Your task to perform on an android device: install app "Chime – Mobile Banking" Image 0: 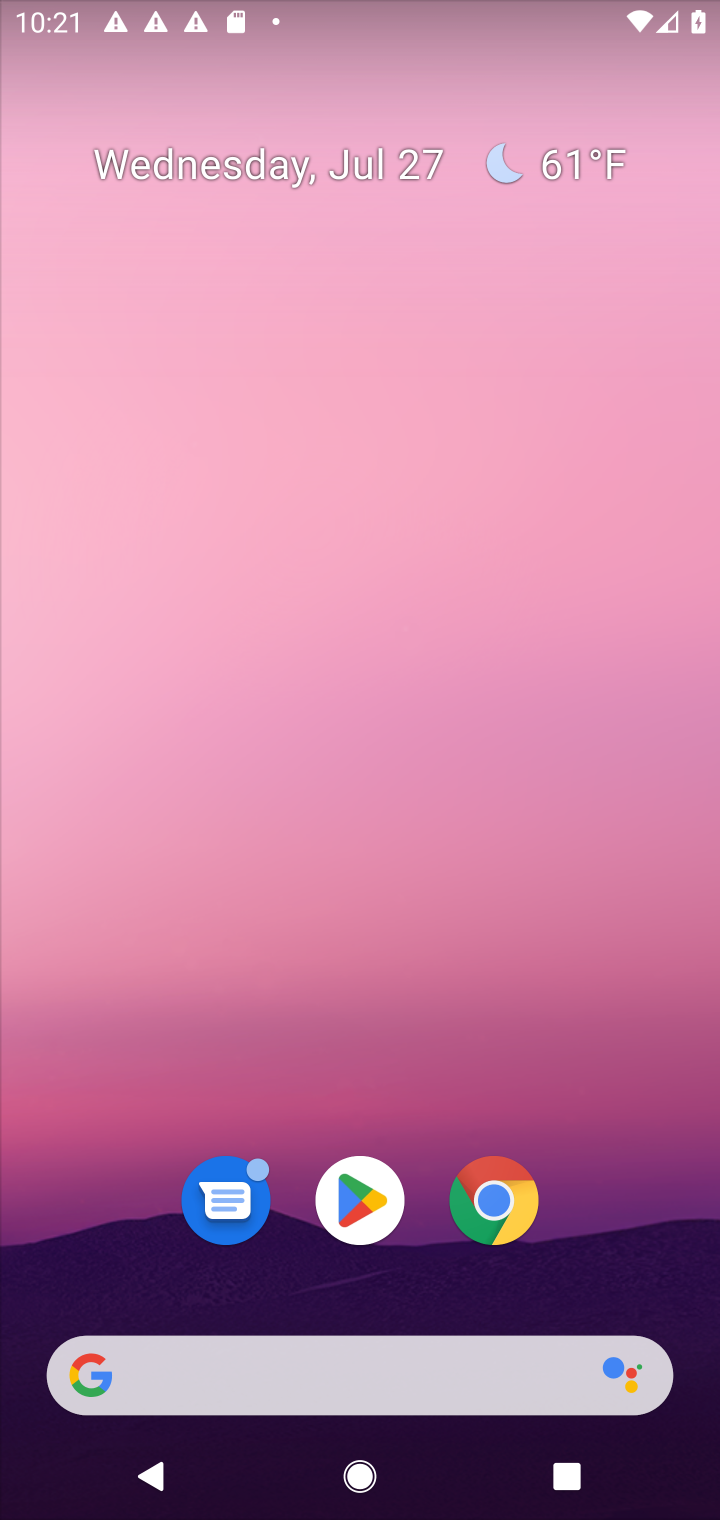
Step 0: click (357, 1196)
Your task to perform on an android device: install app "Chime – Mobile Banking" Image 1: 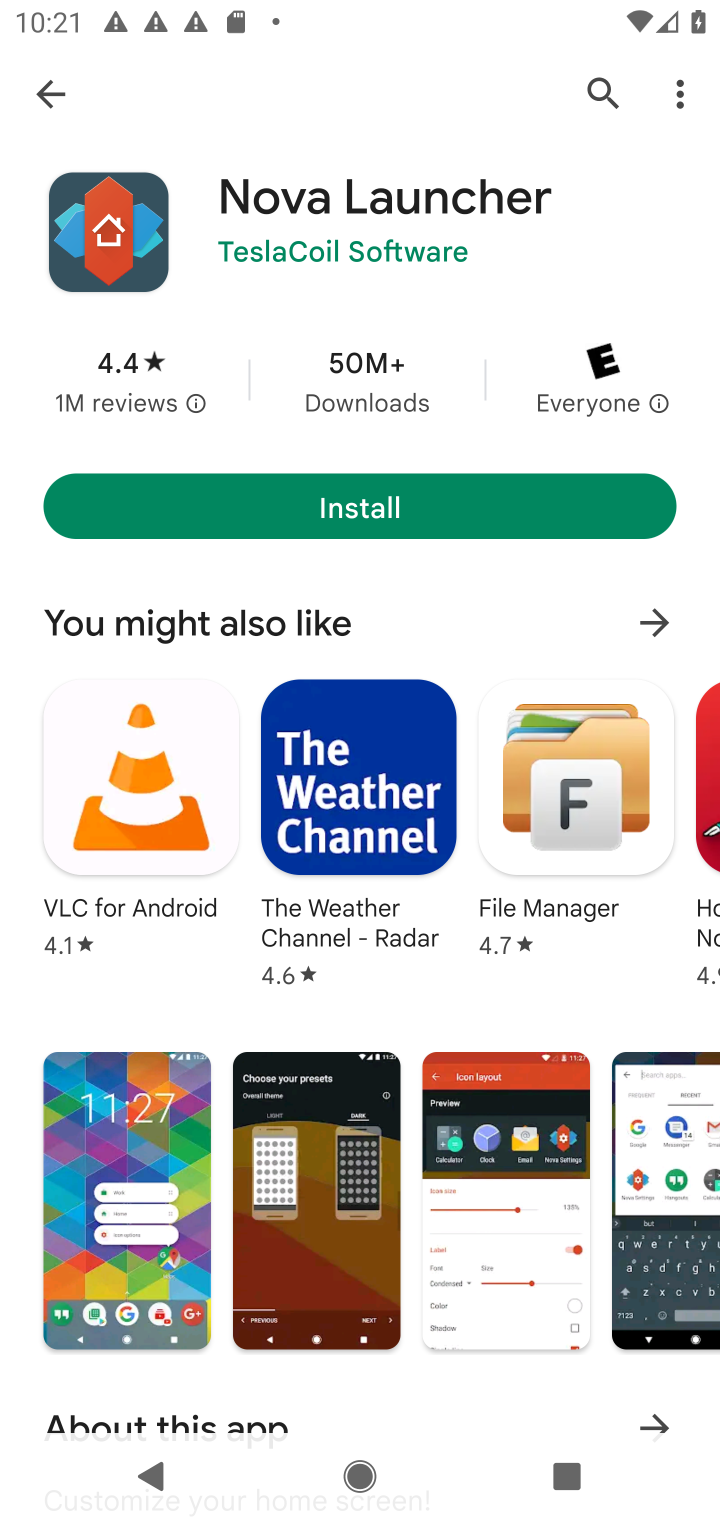
Step 1: click (56, 75)
Your task to perform on an android device: install app "Chime – Mobile Banking" Image 2: 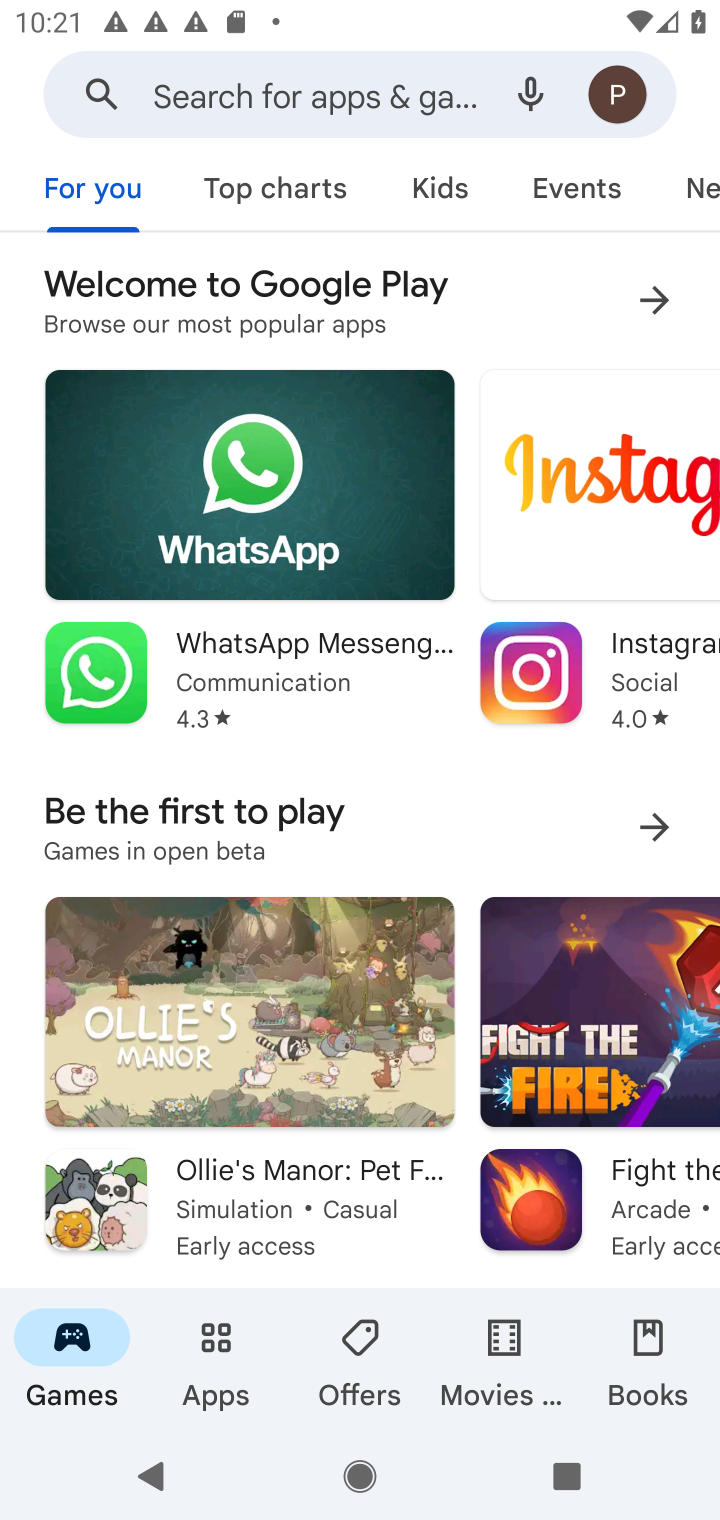
Step 2: click (243, 98)
Your task to perform on an android device: install app "Chime – Mobile Banking" Image 3: 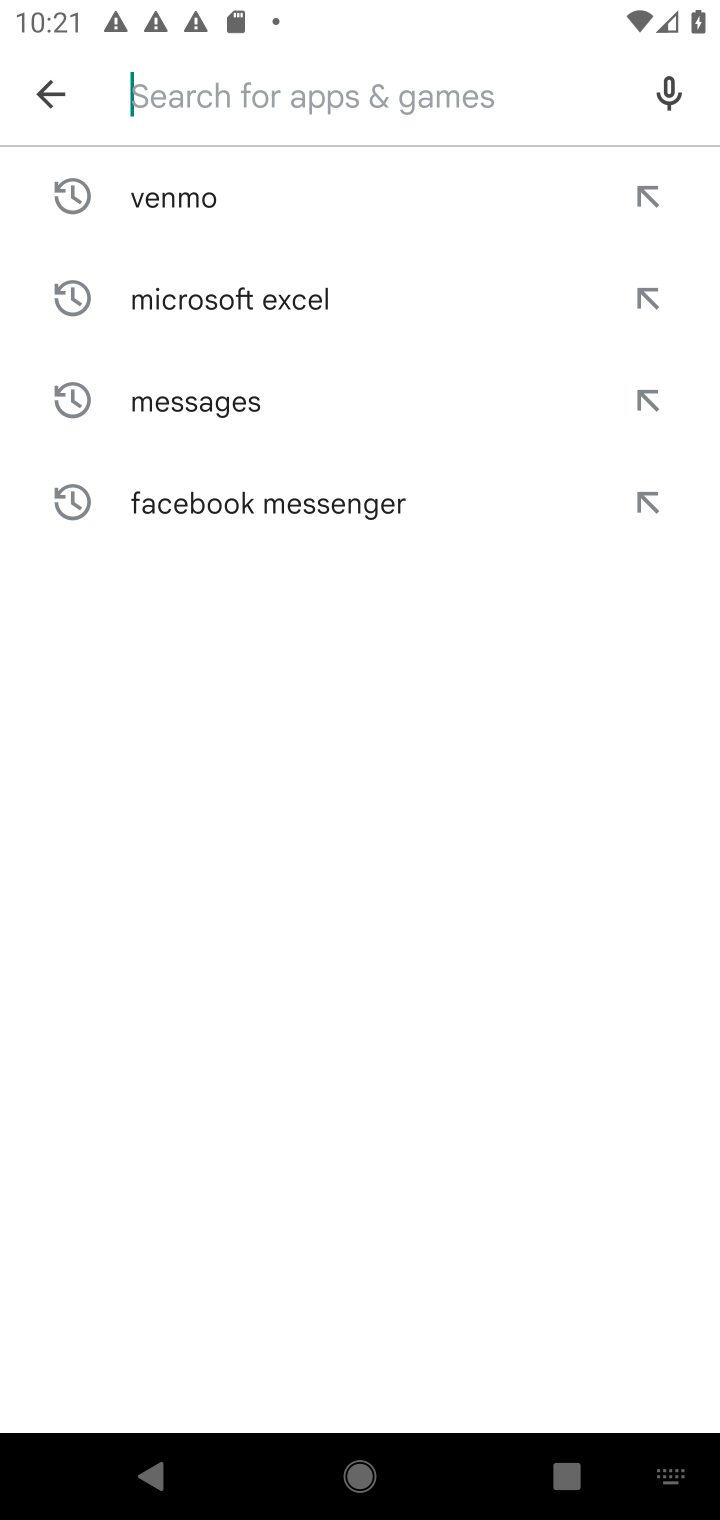
Step 3: type "Chime – Mobile Banking"
Your task to perform on an android device: install app "Chime – Mobile Banking" Image 4: 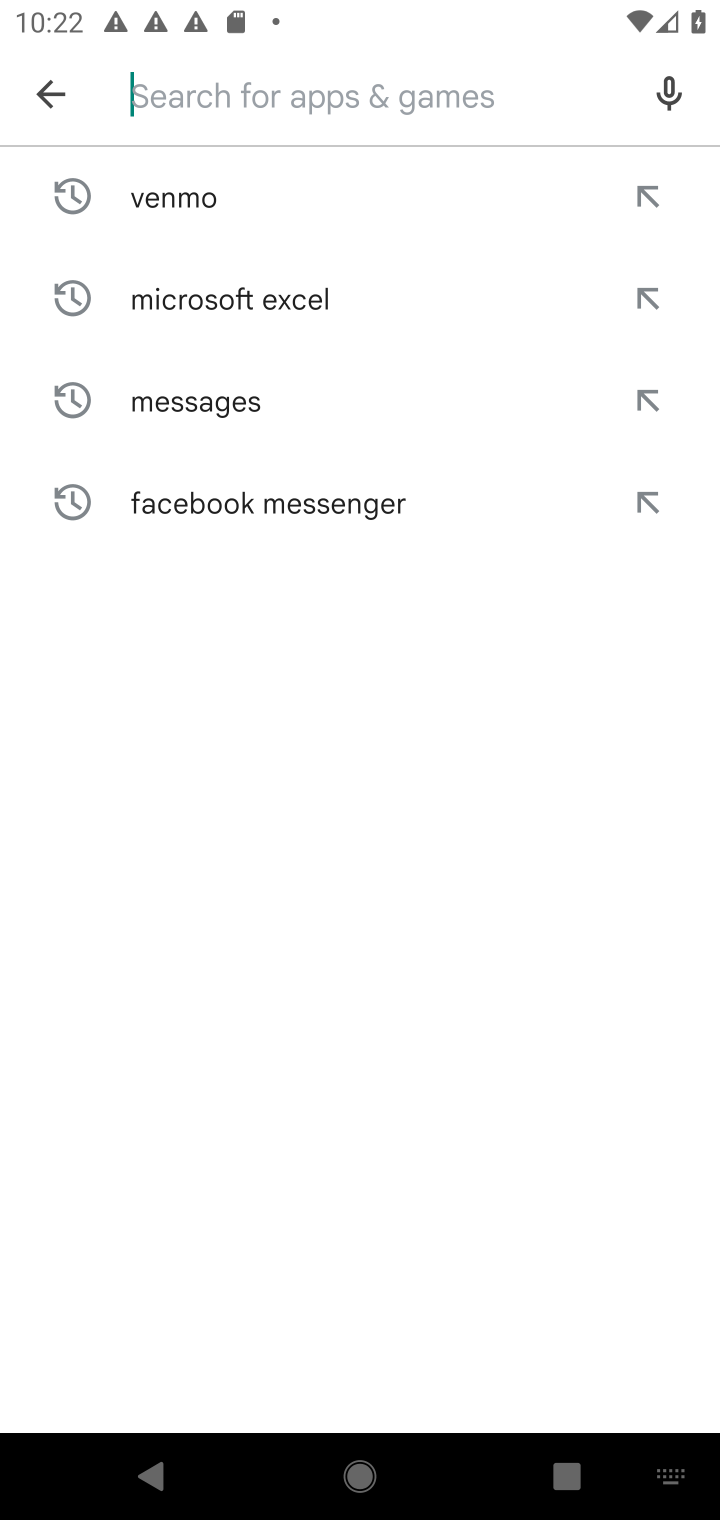
Step 4: type "Chime – Mobile Banking"
Your task to perform on an android device: install app "Chime – Mobile Banking" Image 5: 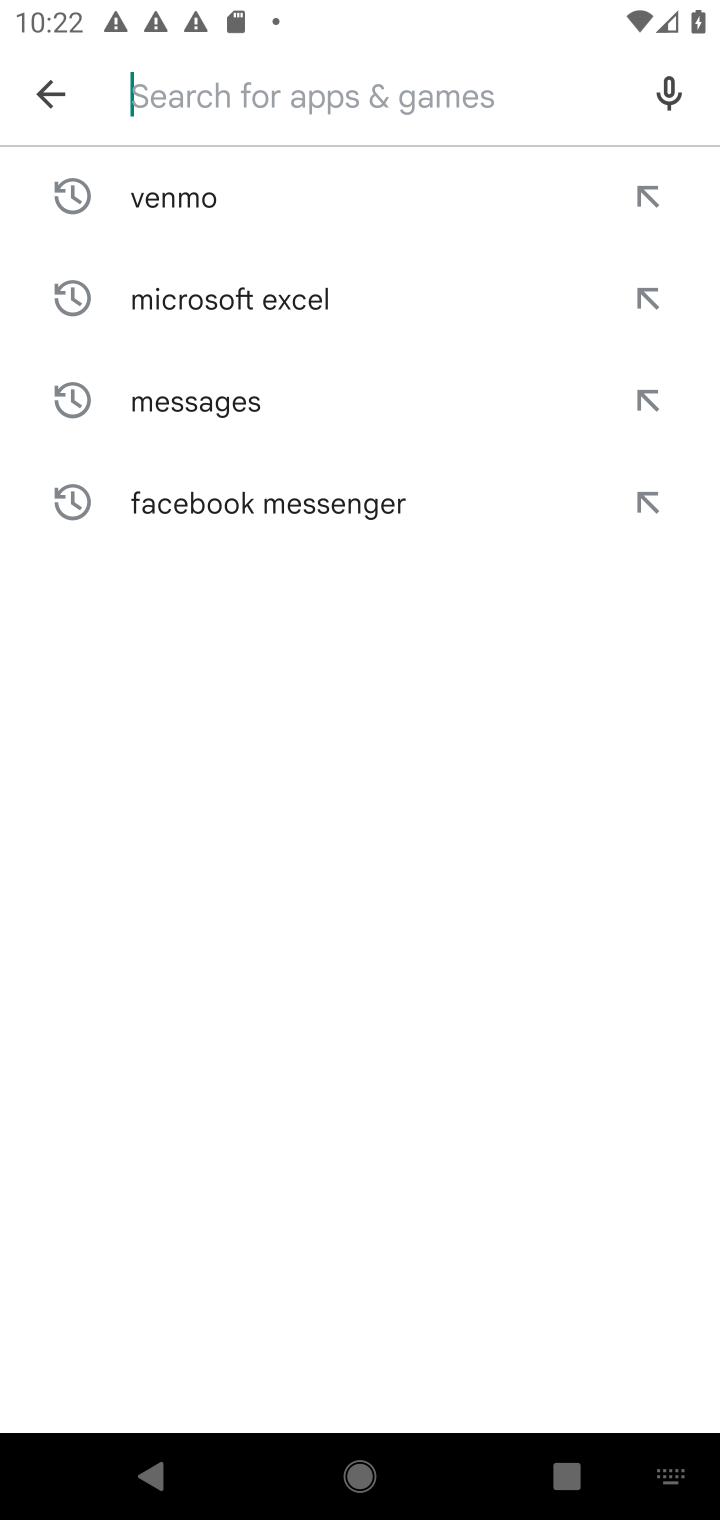
Step 5: task complete